Your task to perform on an android device: Search for seafood restaurants on Google Maps Image 0: 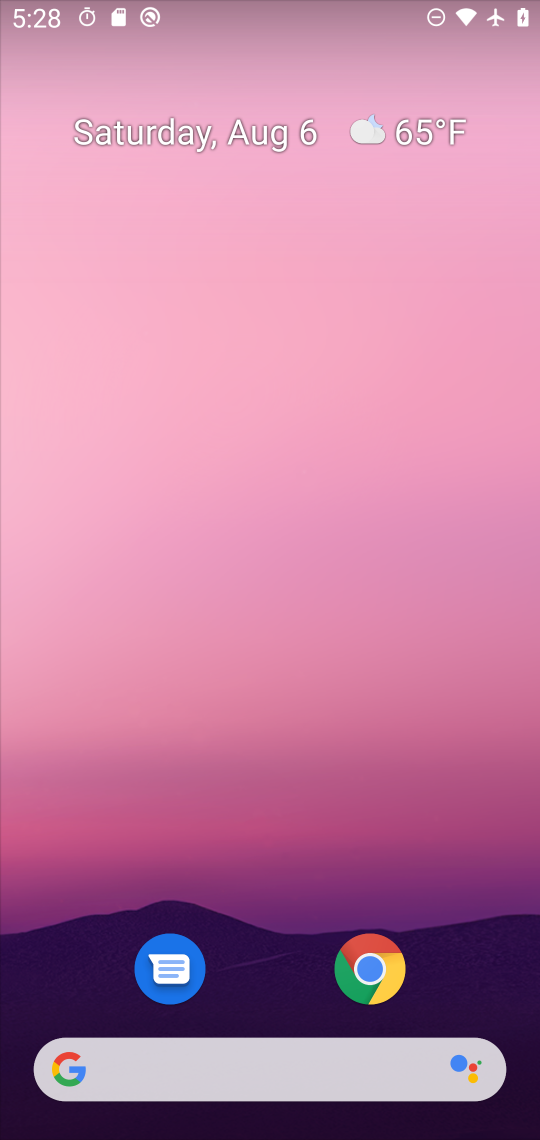
Step 0: press home button
Your task to perform on an android device: Search for seafood restaurants on Google Maps Image 1: 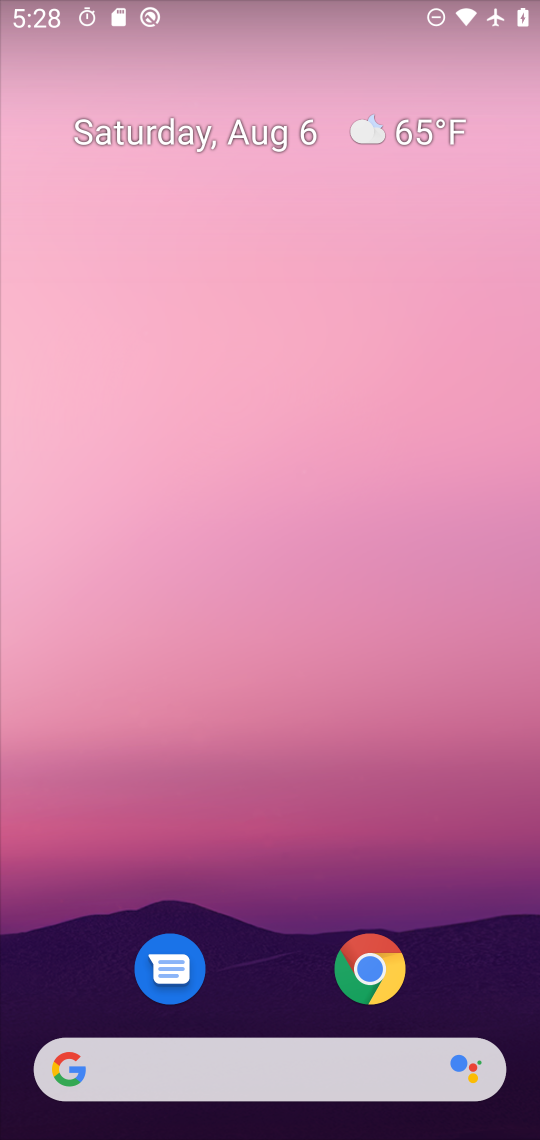
Step 1: drag from (267, 941) to (281, 223)
Your task to perform on an android device: Search for seafood restaurants on Google Maps Image 2: 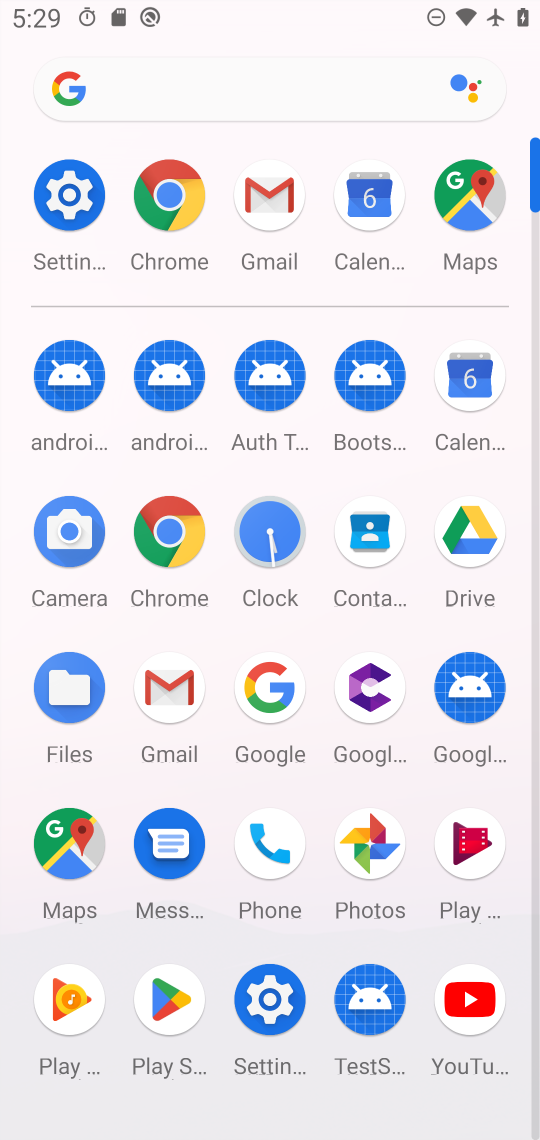
Step 2: click (469, 212)
Your task to perform on an android device: Search for seafood restaurants on Google Maps Image 3: 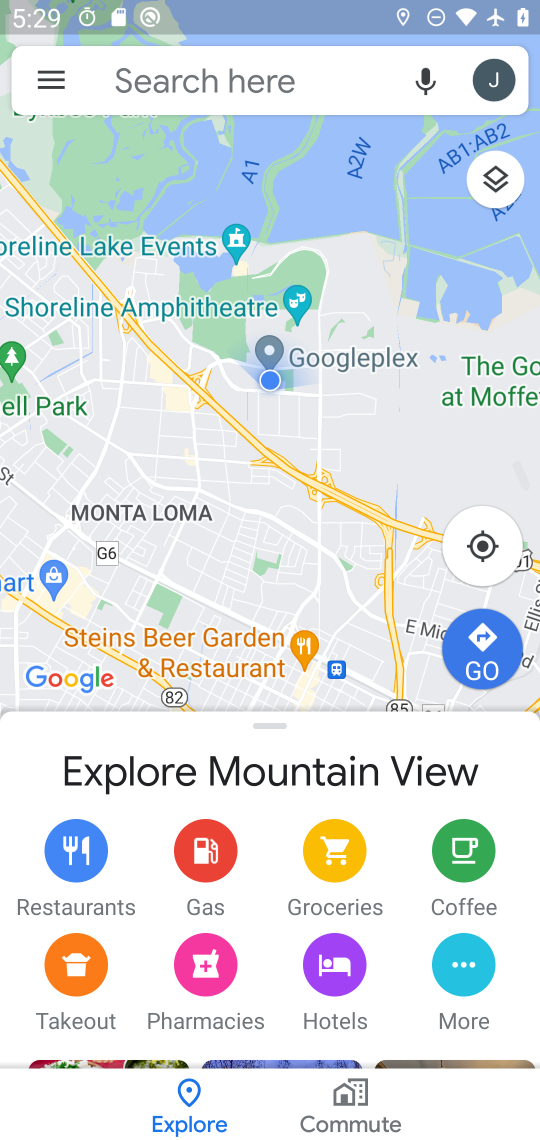
Step 3: click (114, 82)
Your task to perform on an android device: Search for seafood restaurants on Google Maps Image 4: 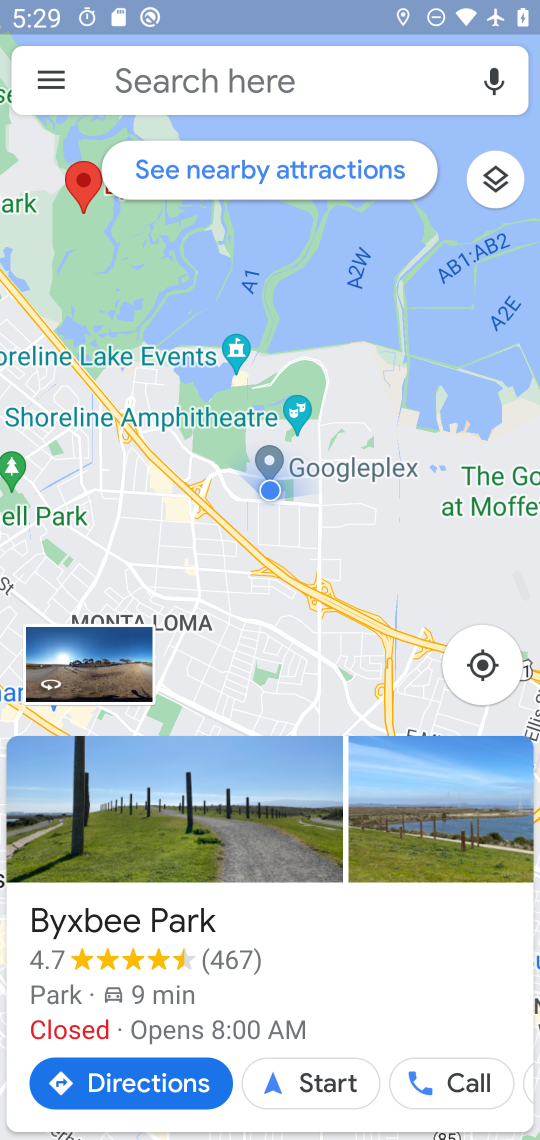
Step 4: click (294, 90)
Your task to perform on an android device: Search for seafood restaurants on Google Maps Image 5: 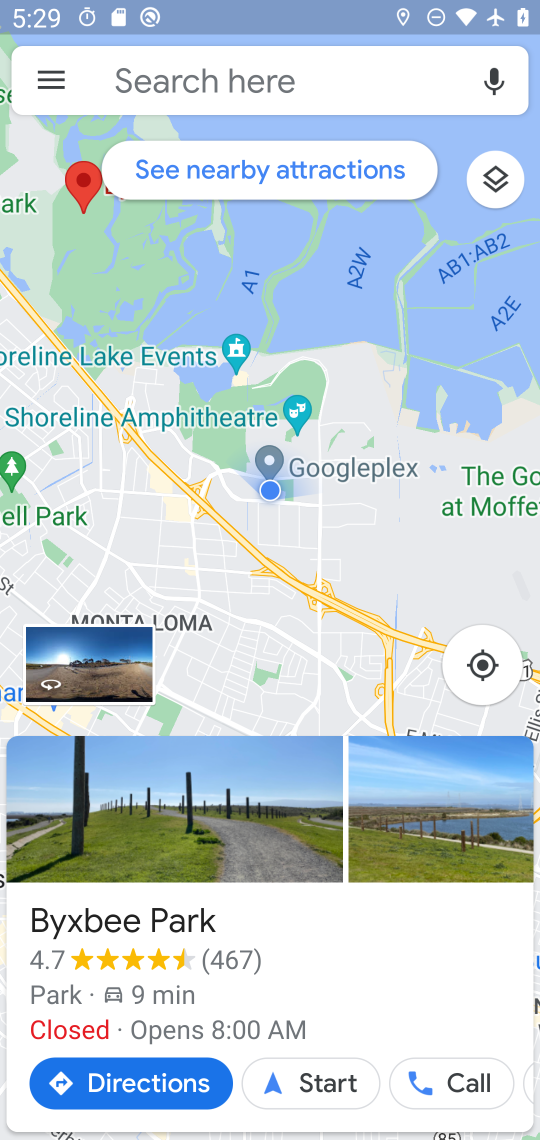
Step 5: click (267, 63)
Your task to perform on an android device: Search for seafood restaurants on Google Maps Image 6: 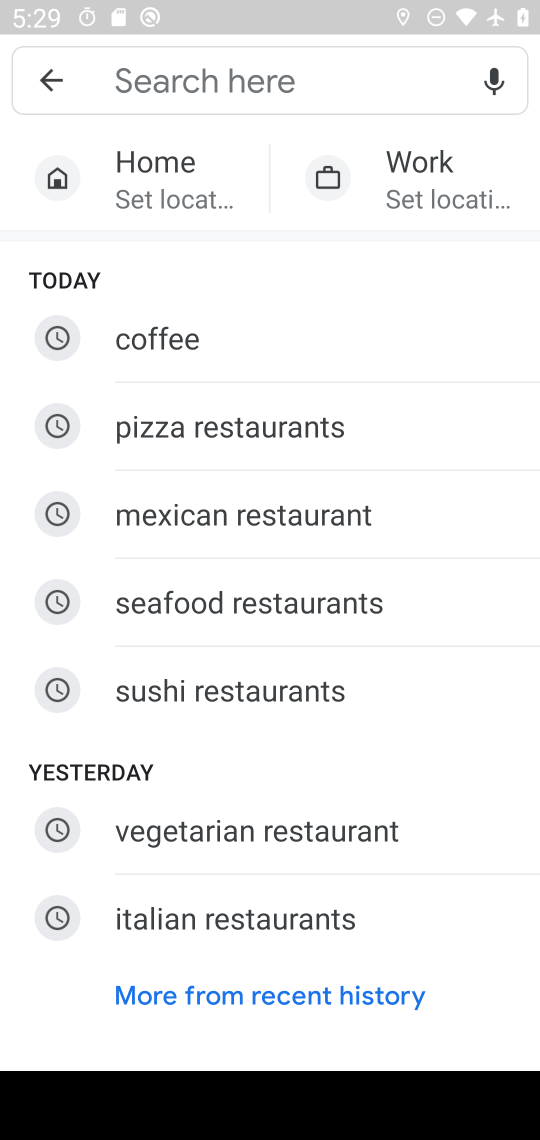
Step 6: click (245, 597)
Your task to perform on an android device: Search for seafood restaurants on Google Maps Image 7: 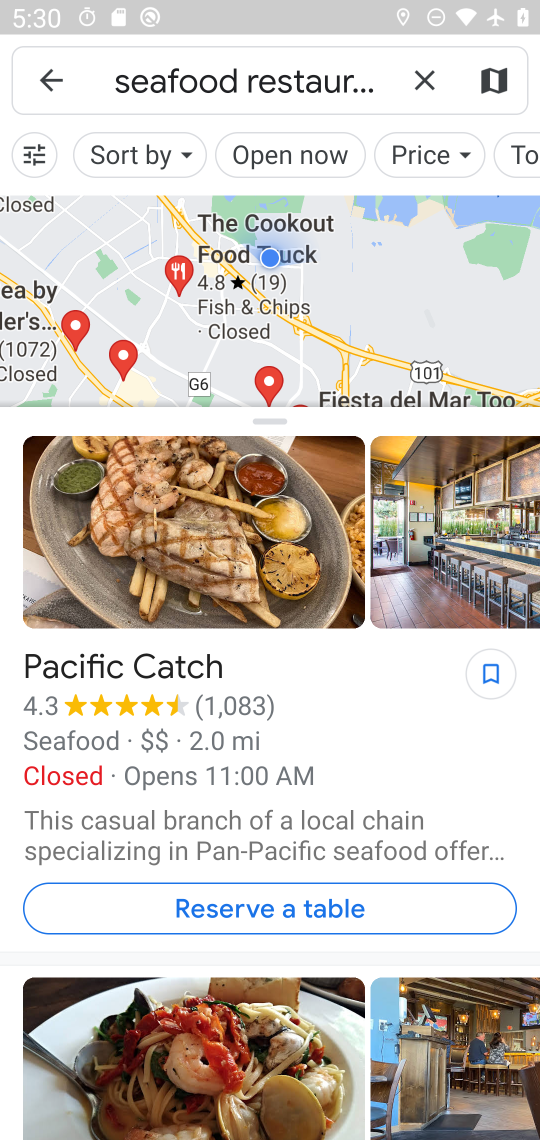
Step 7: task complete